Your task to perform on an android device: Open Youtube and go to the subscriptions tab Image 0: 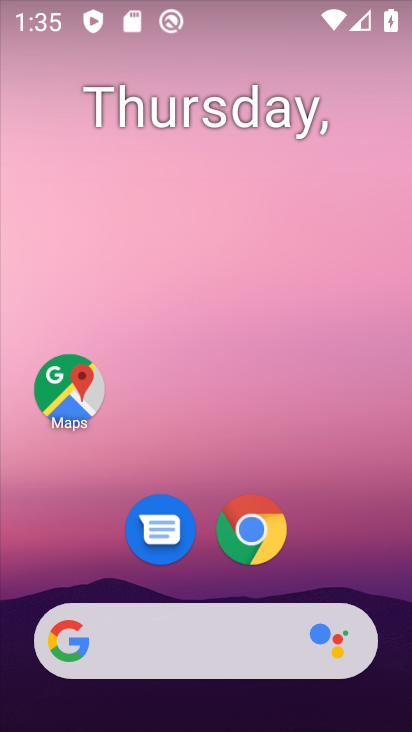
Step 0: drag from (214, 681) to (219, 77)
Your task to perform on an android device: Open Youtube and go to the subscriptions tab Image 1: 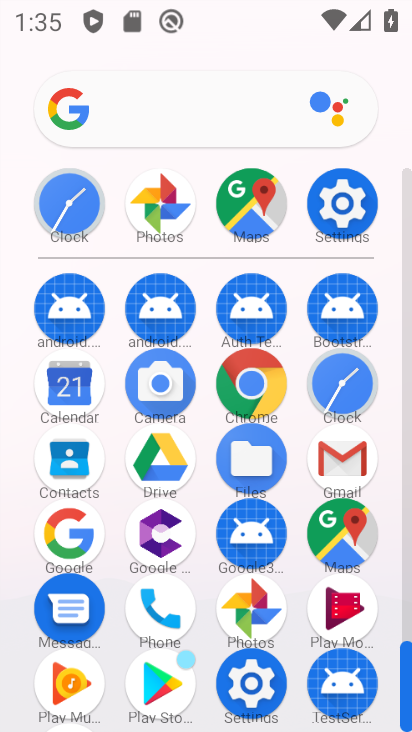
Step 1: drag from (201, 552) to (201, 329)
Your task to perform on an android device: Open Youtube and go to the subscriptions tab Image 2: 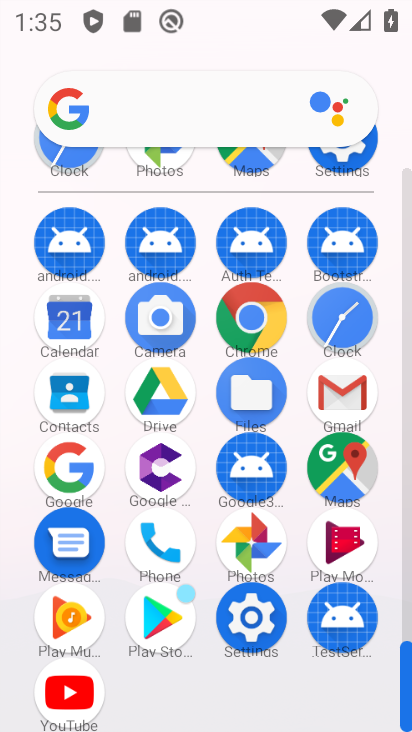
Step 2: click (67, 692)
Your task to perform on an android device: Open Youtube and go to the subscriptions tab Image 3: 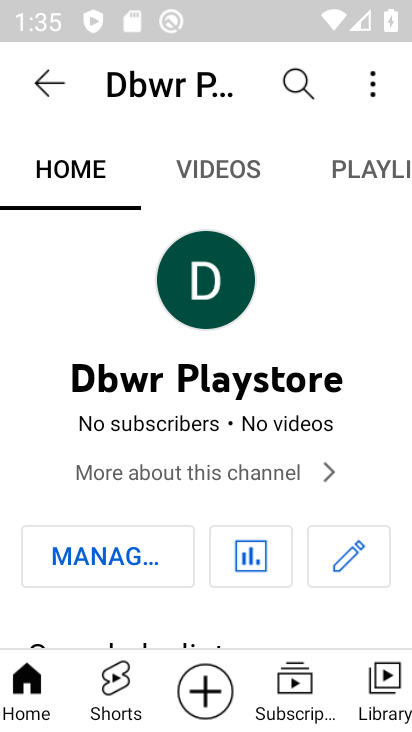
Step 3: click (283, 674)
Your task to perform on an android device: Open Youtube and go to the subscriptions tab Image 4: 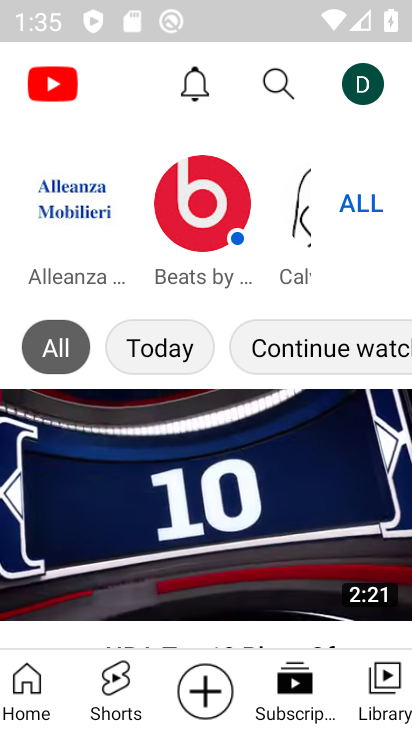
Step 4: task complete